Your task to perform on an android device: toggle notifications settings in the gmail app Image 0: 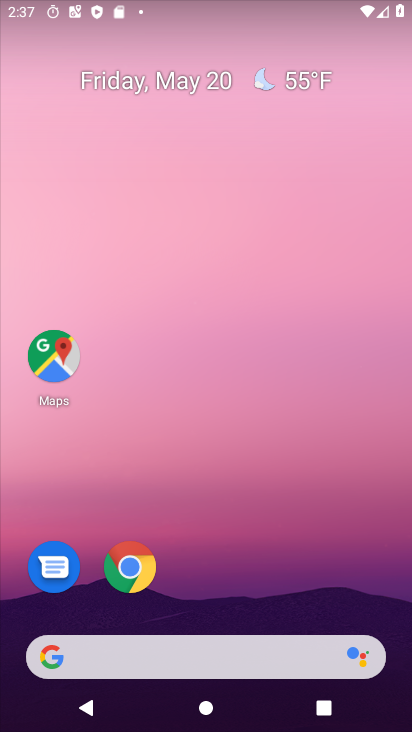
Step 0: drag from (209, 628) to (203, 236)
Your task to perform on an android device: toggle notifications settings in the gmail app Image 1: 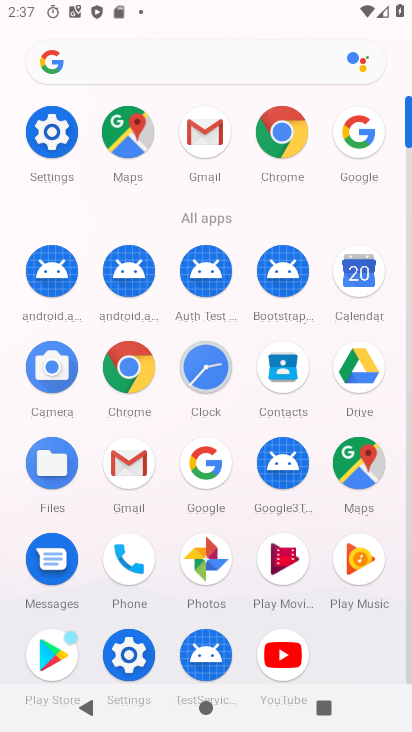
Step 1: click (213, 125)
Your task to perform on an android device: toggle notifications settings in the gmail app Image 2: 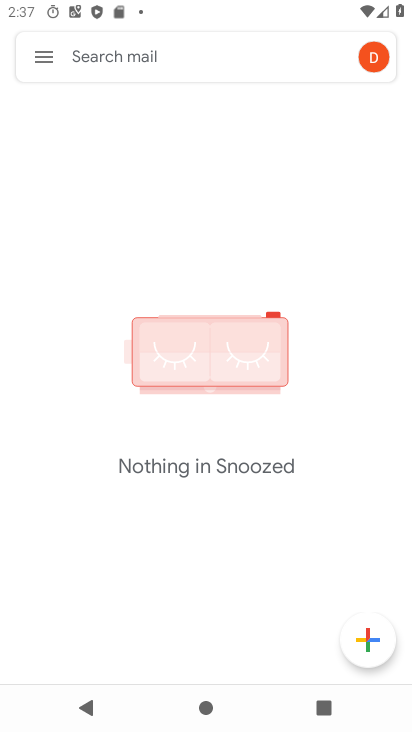
Step 2: click (40, 60)
Your task to perform on an android device: toggle notifications settings in the gmail app Image 3: 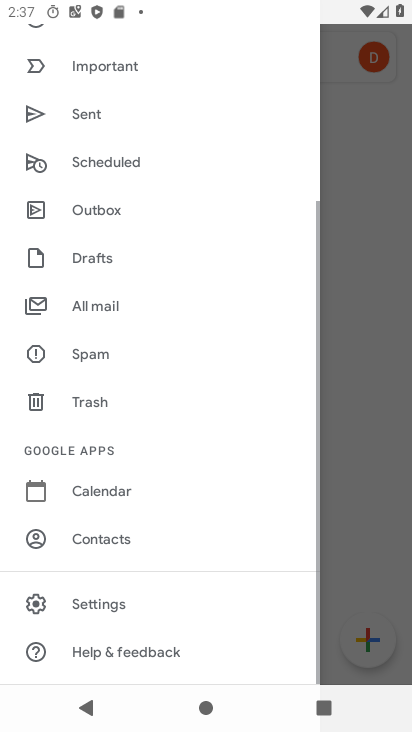
Step 3: click (107, 589)
Your task to perform on an android device: toggle notifications settings in the gmail app Image 4: 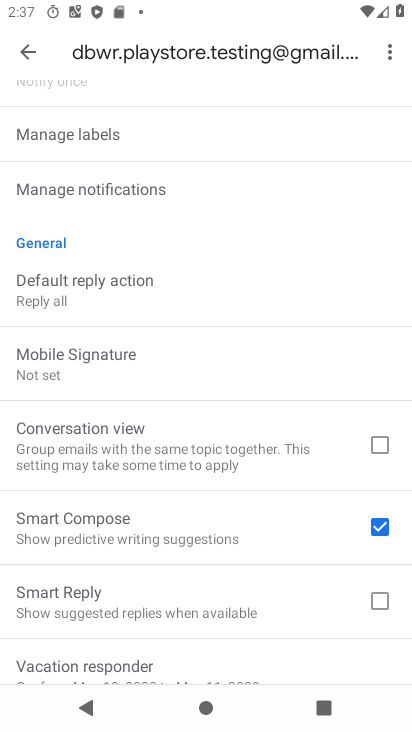
Step 4: click (23, 41)
Your task to perform on an android device: toggle notifications settings in the gmail app Image 5: 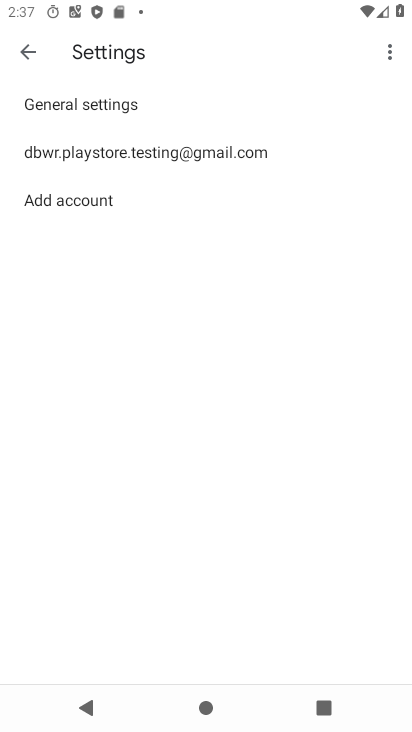
Step 5: click (83, 99)
Your task to perform on an android device: toggle notifications settings in the gmail app Image 6: 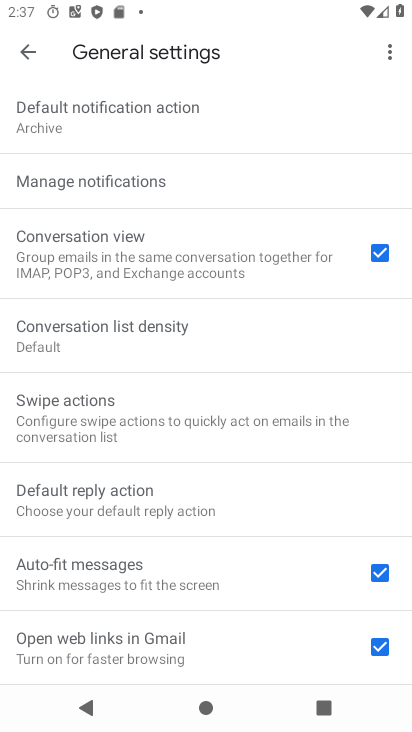
Step 6: click (105, 181)
Your task to perform on an android device: toggle notifications settings in the gmail app Image 7: 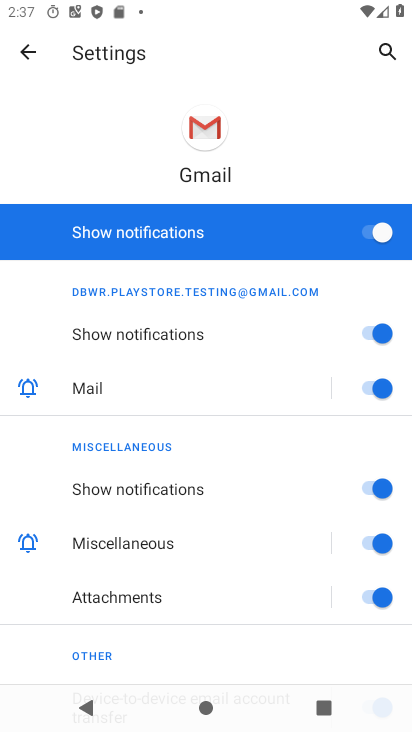
Step 7: click (356, 229)
Your task to perform on an android device: toggle notifications settings in the gmail app Image 8: 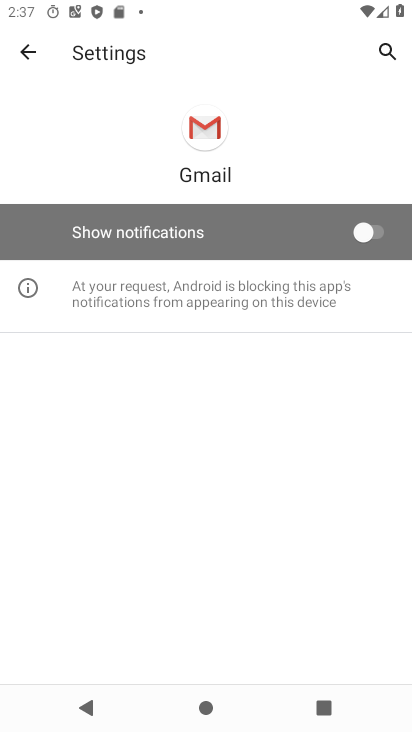
Step 8: task complete